Your task to perform on an android device: turn off location history Image 0: 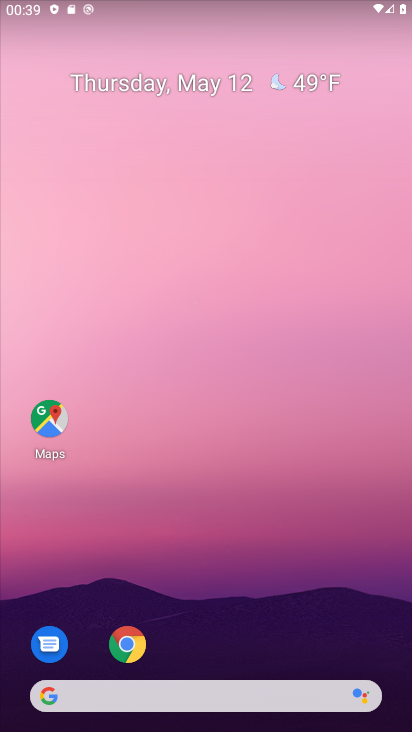
Step 0: drag from (225, 559) to (175, 84)
Your task to perform on an android device: turn off location history Image 1: 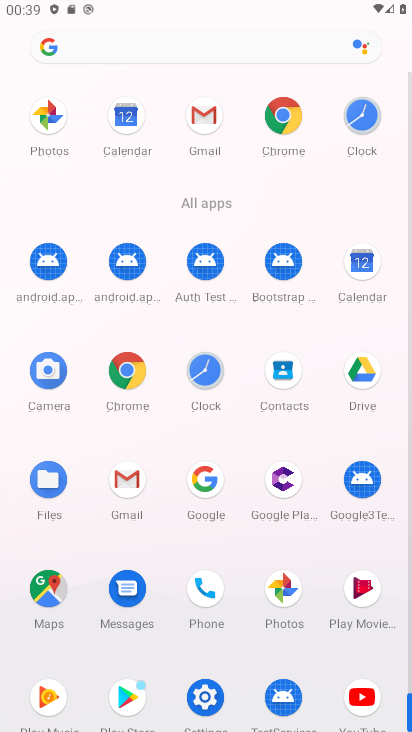
Step 1: click (46, 585)
Your task to perform on an android device: turn off location history Image 2: 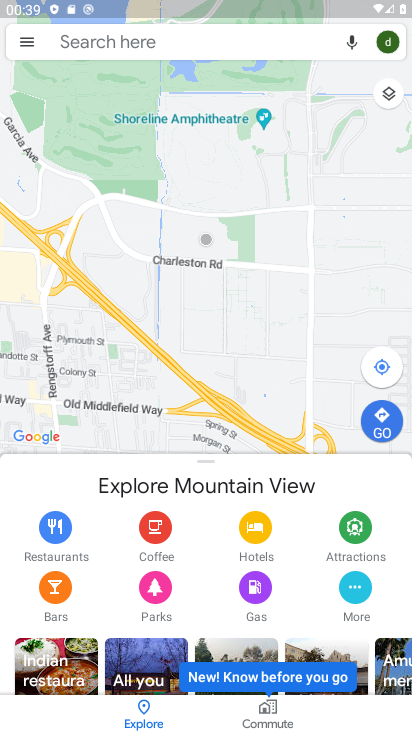
Step 2: click (32, 48)
Your task to perform on an android device: turn off location history Image 3: 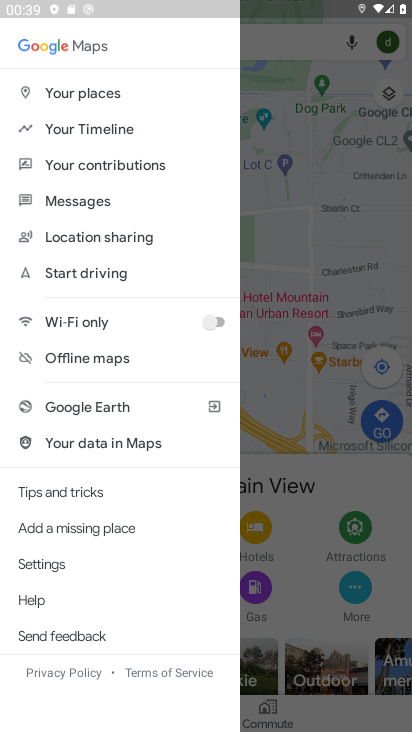
Step 3: click (76, 130)
Your task to perform on an android device: turn off location history Image 4: 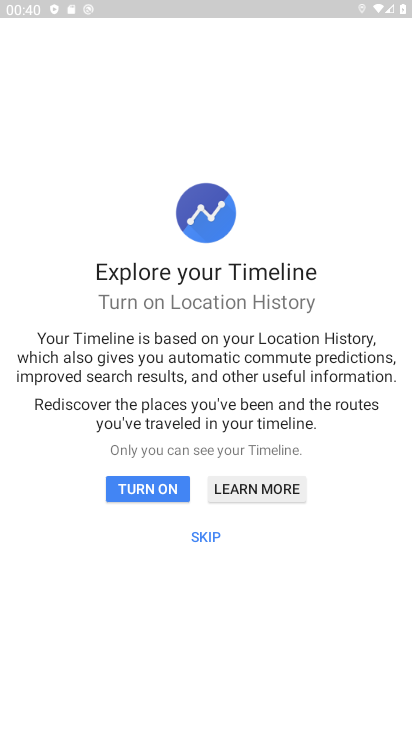
Step 4: click (148, 501)
Your task to perform on an android device: turn off location history Image 5: 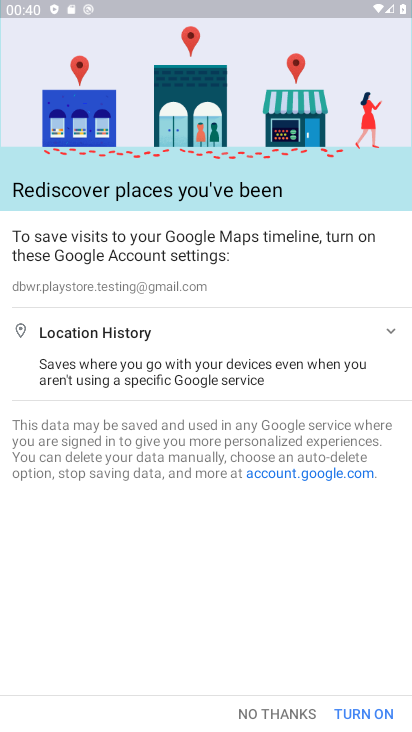
Step 5: click (358, 709)
Your task to perform on an android device: turn off location history Image 6: 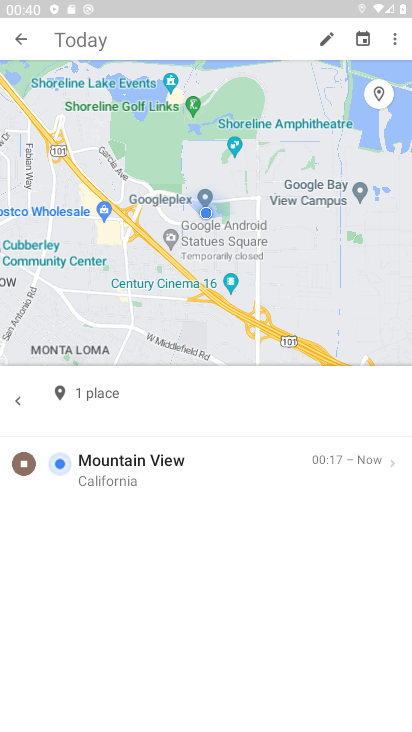
Step 6: click (395, 37)
Your task to perform on an android device: turn off location history Image 7: 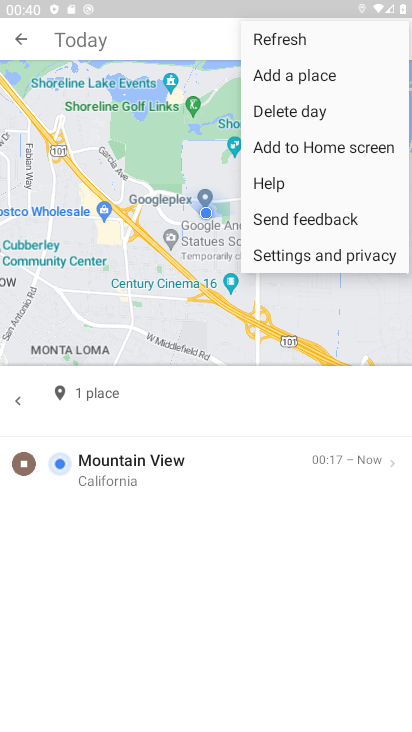
Step 7: click (314, 251)
Your task to perform on an android device: turn off location history Image 8: 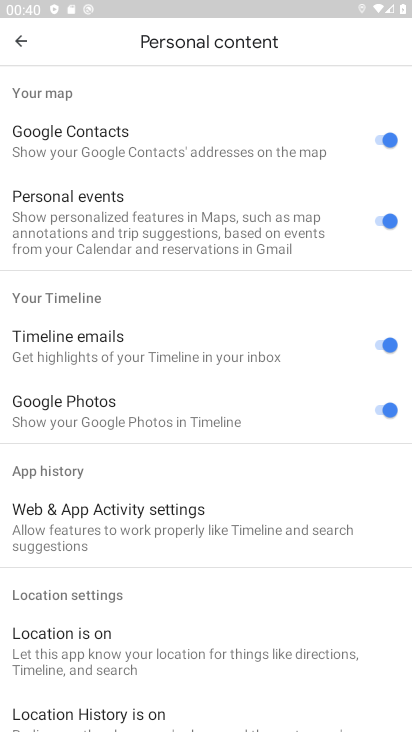
Step 8: drag from (241, 560) to (202, 233)
Your task to perform on an android device: turn off location history Image 9: 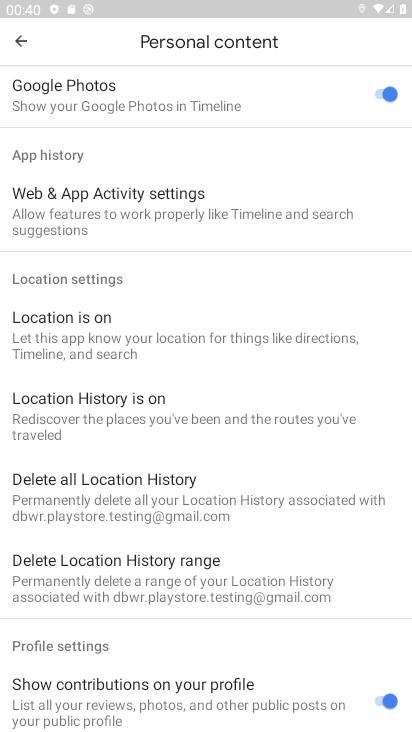
Step 9: click (88, 395)
Your task to perform on an android device: turn off location history Image 10: 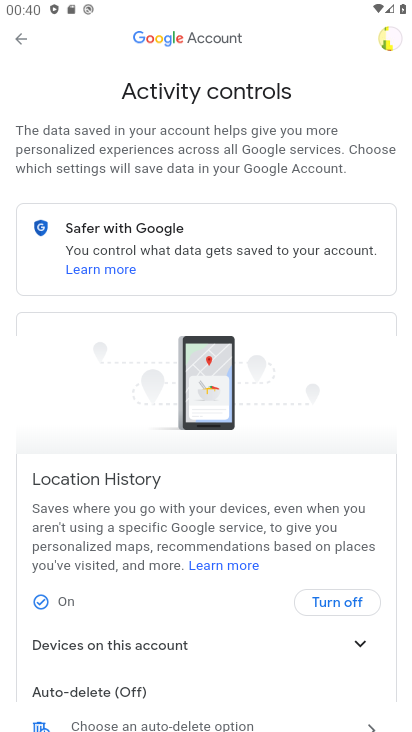
Step 10: click (320, 604)
Your task to perform on an android device: turn off location history Image 11: 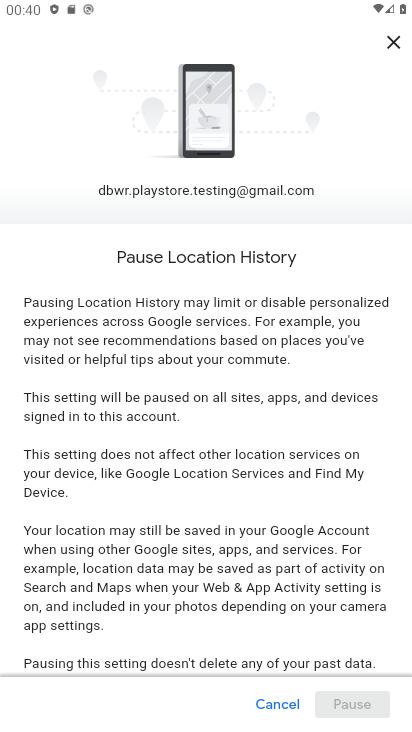
Step 11: drag from (298, 513) to (259, 271)
Your task to perform on an android device: turn off location history Image 12: 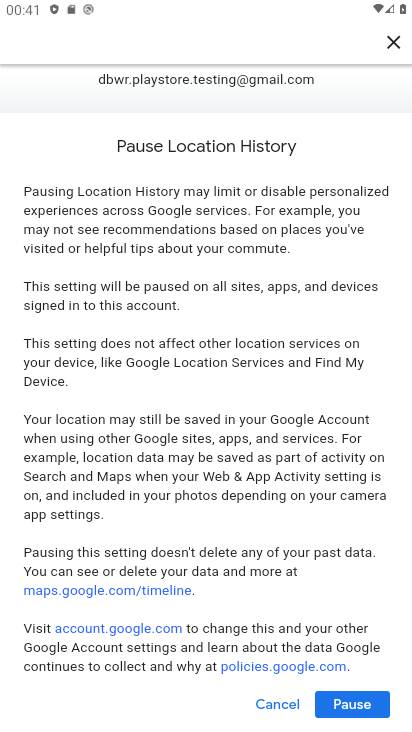
Step 12: click (351, 710)
Your task to perform on an android device: turn off location history Image 13: 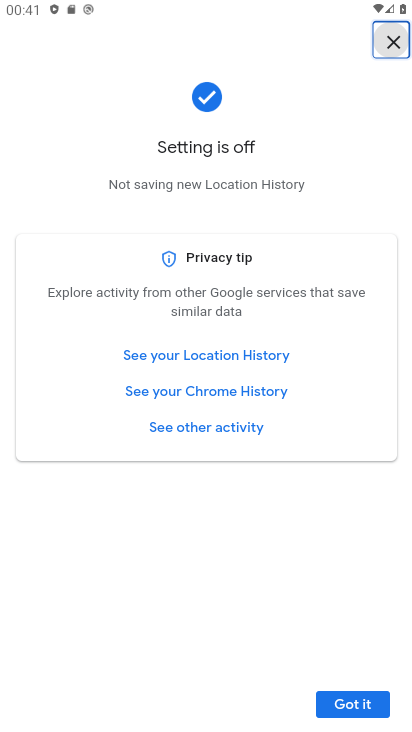
Step 13: click (351, 710)
Your task to perform on an android device: turn off location history Image 14: 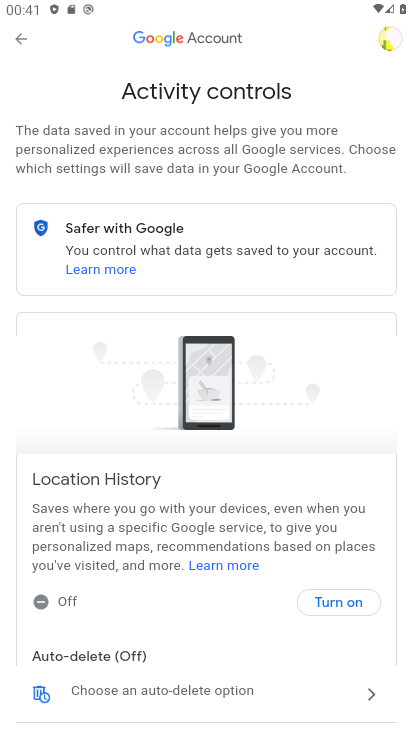
Step 14: task complete